Your task to perform on an android device: Open Youtube and go to "Your channel" Image 0: 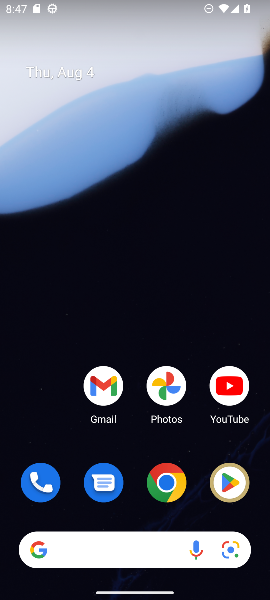
Step 0: press home button
Your task to perform on an android device: Open Youtube and go to "Your channel" Image 1: 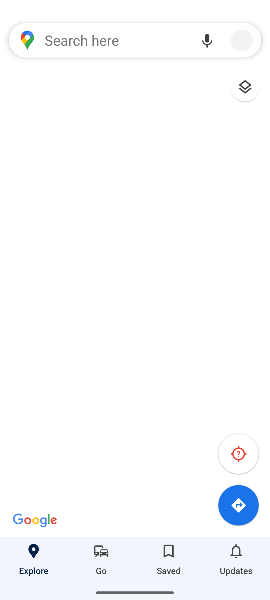
Step 1: drag from (138, 452) to (146, 384)
Your task to perform on an android device: Open Youtube and go to "Your channel" Image 2: 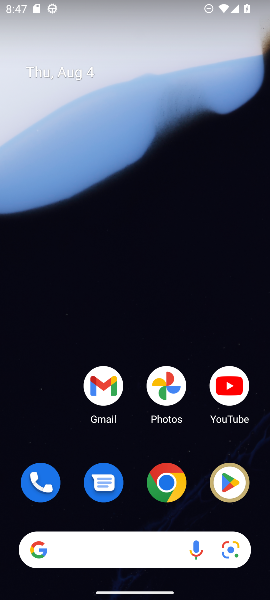
Step 2: click (130, 450)
Your task to perform on an android device: Open Youtube and go to "Your channel" Image 3: 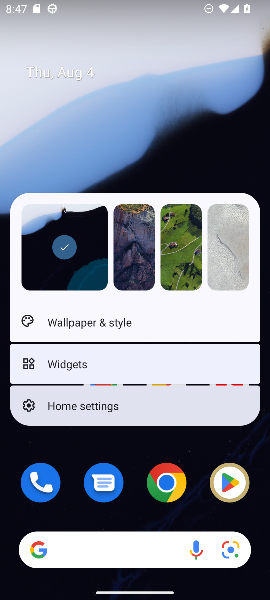
Step 3: click (114, 83)
Your task to perform on an android device: Open Youtube and go to "Your channel" Image 4: 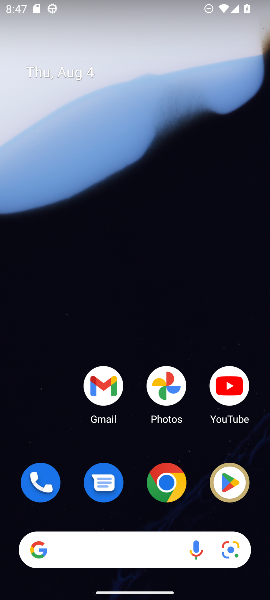
Step 4: click (226, 380)
Your task to perform on an android device: Open Youtube and go to "Your channel" Image 5: 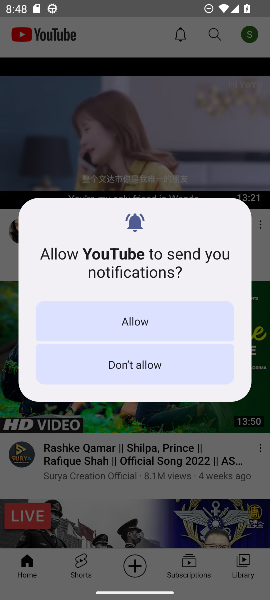
Step 5: click (130, 320)
Your task to perform on an android device: Open Youtube and go to "Your channel" Image 6: 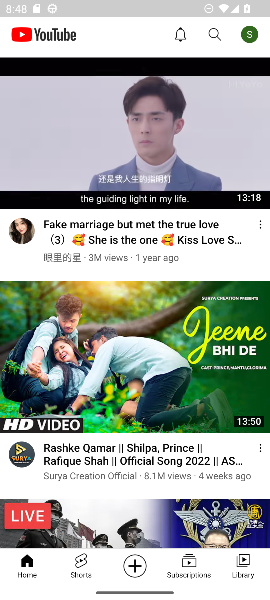
Step 6: click (246, 31)
Your task to perform on an android device: Open Youtube and go to "Your channel" Image 7: 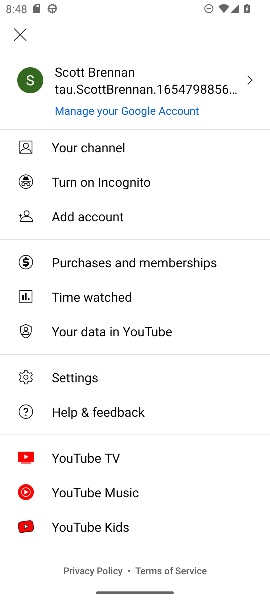
Step 7: click (80, 146)
Your task to perform on an android device: Open Youtube and go to "Your channel" Image 8: 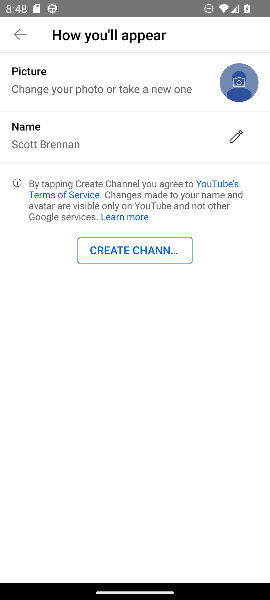
Step 8: task complete